Your task to perform on an android device: uninstall "Grab" Image 0: 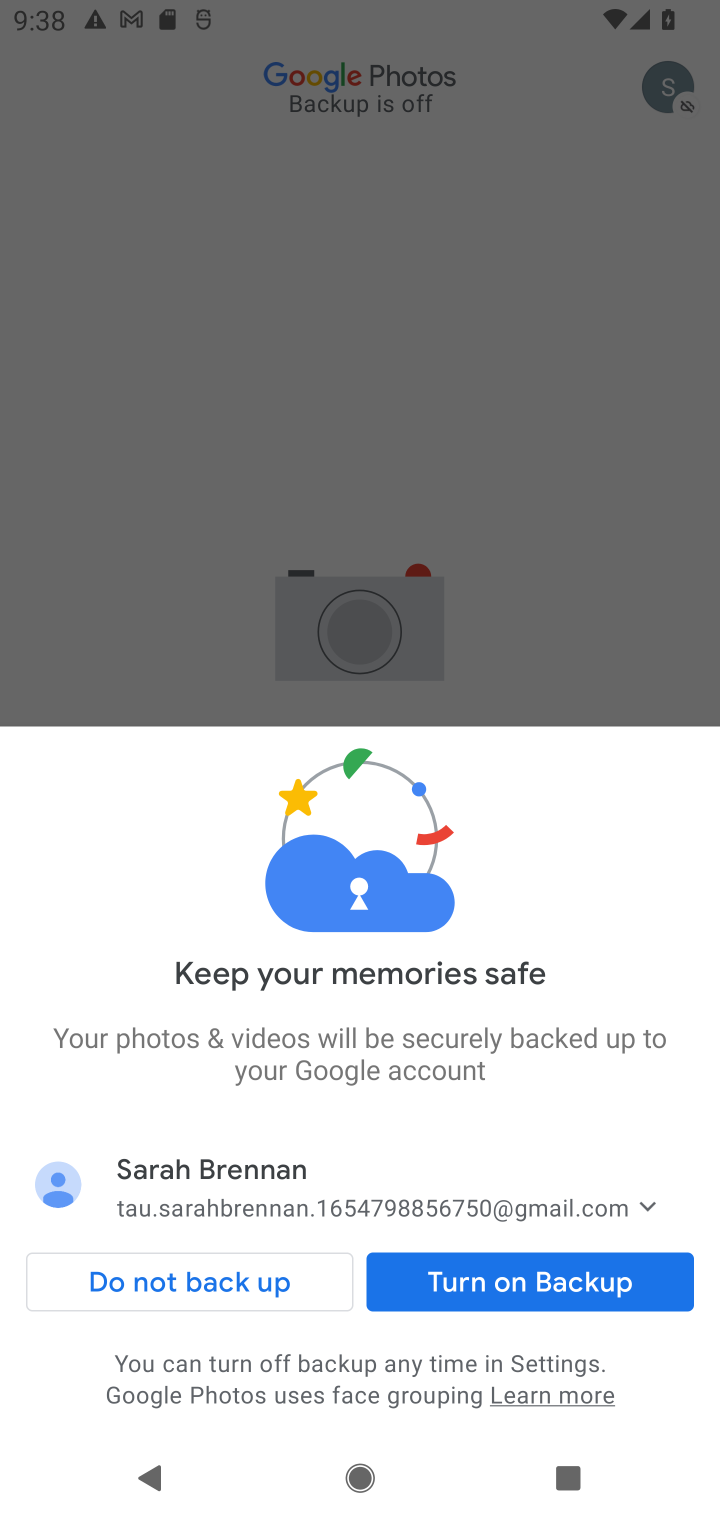
Step 0: press home button
Your task to perform on an android device: uninstall "Grab" Image 1: 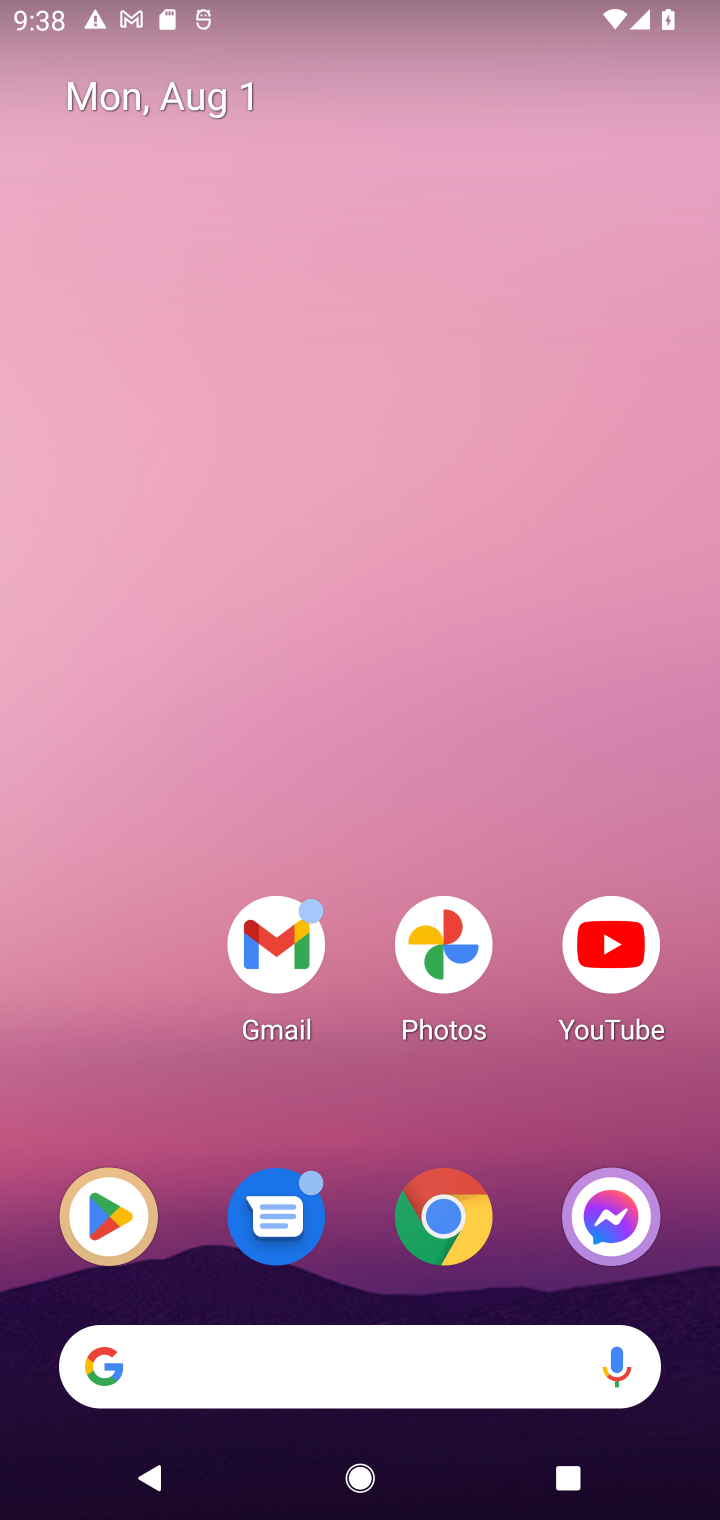
Step 1: click (129, 1225)
Your task to perform on an android device: uninstall "Grab" Image 2: 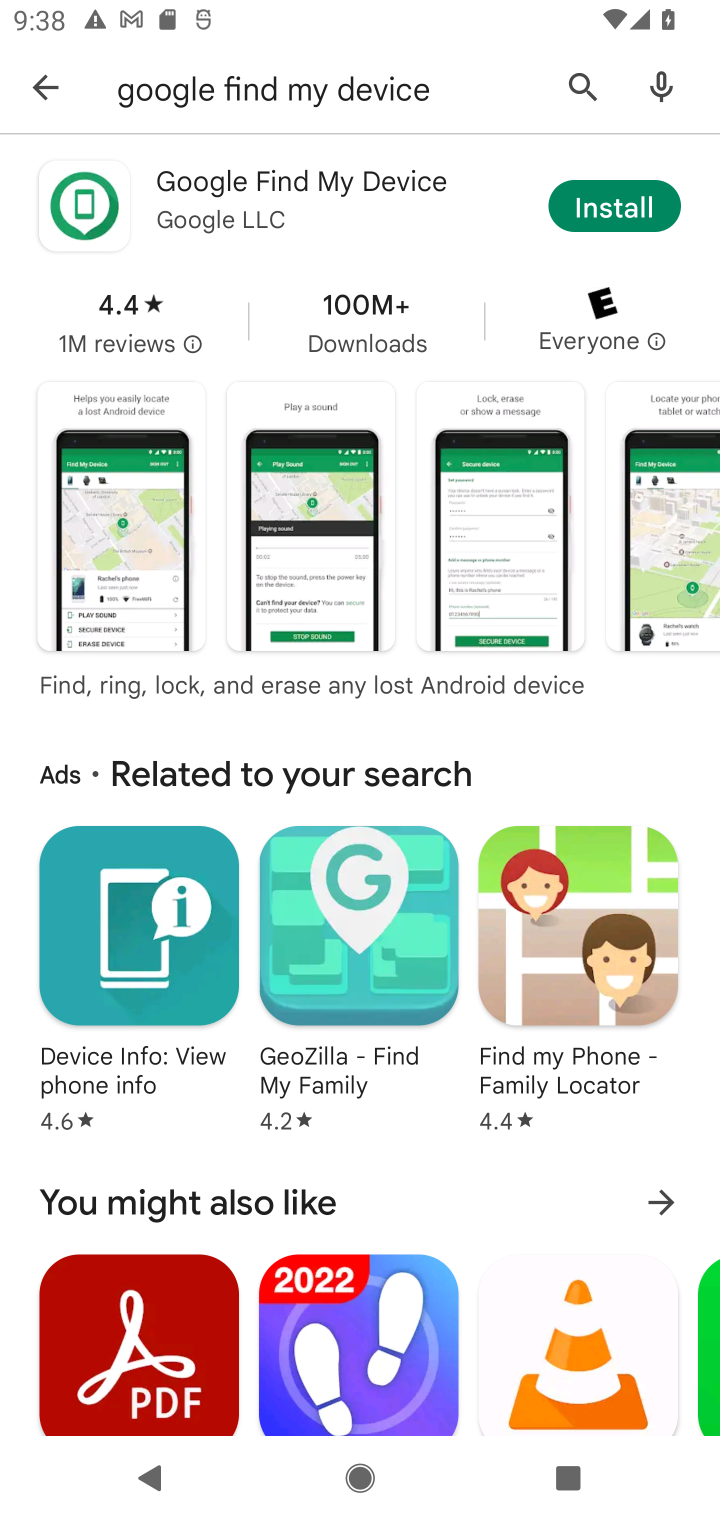
Step 2: click (593, 80)
Your task to perform on an android device: uninstall "Grab" Image 3: 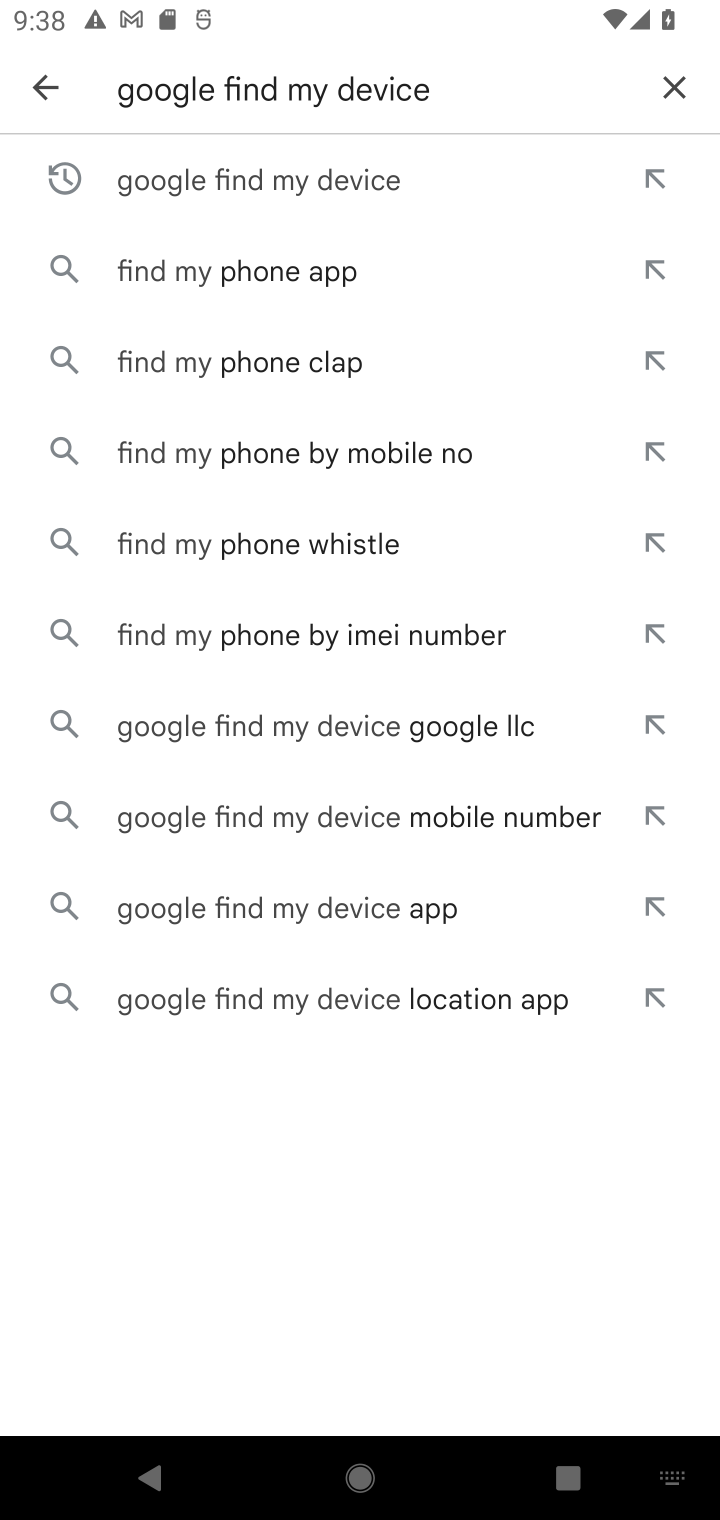
Step 3: click (669, 81)
Your task to perform on an android device: uninstall "Grab" Image 4: 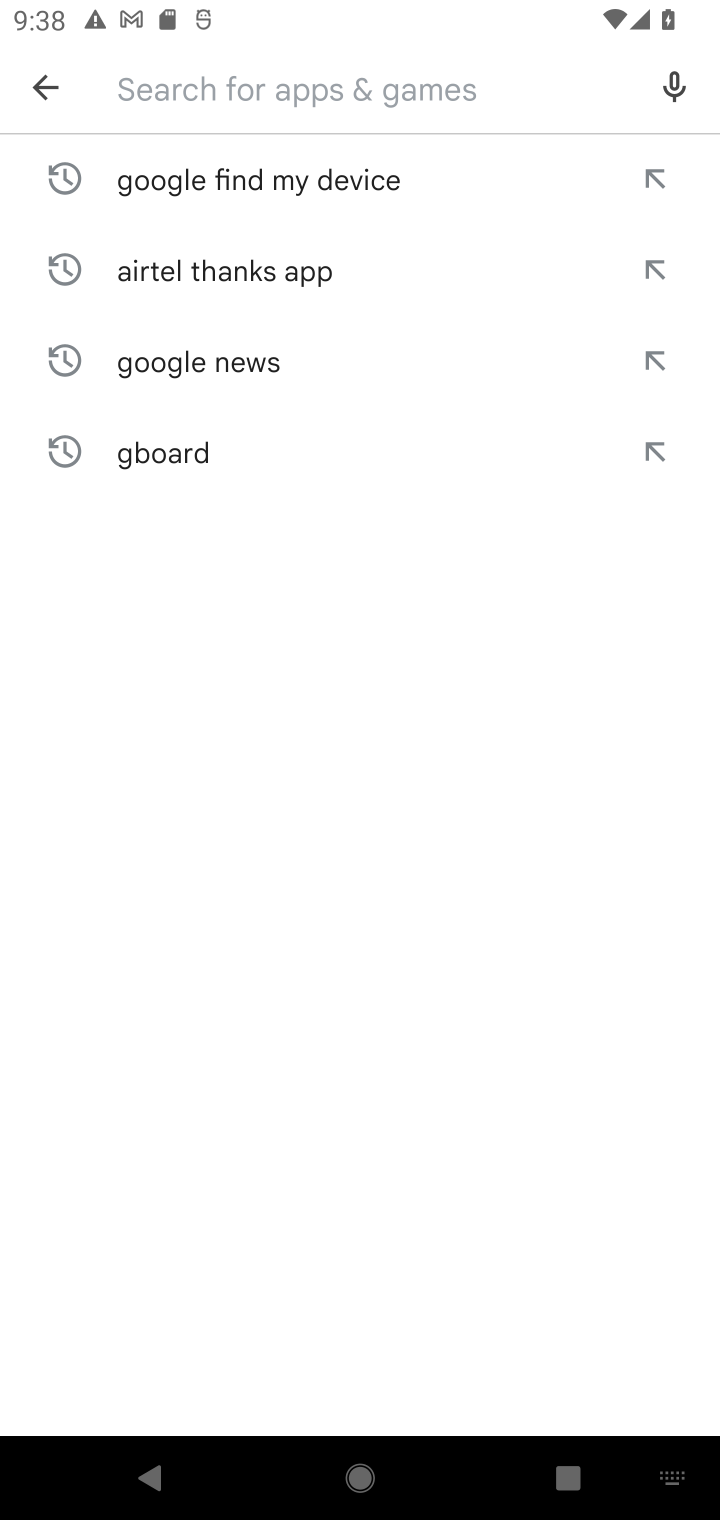
Step 4: type "Grab"
Your task to perform on an android device: uninstall "Grab" Image 5: 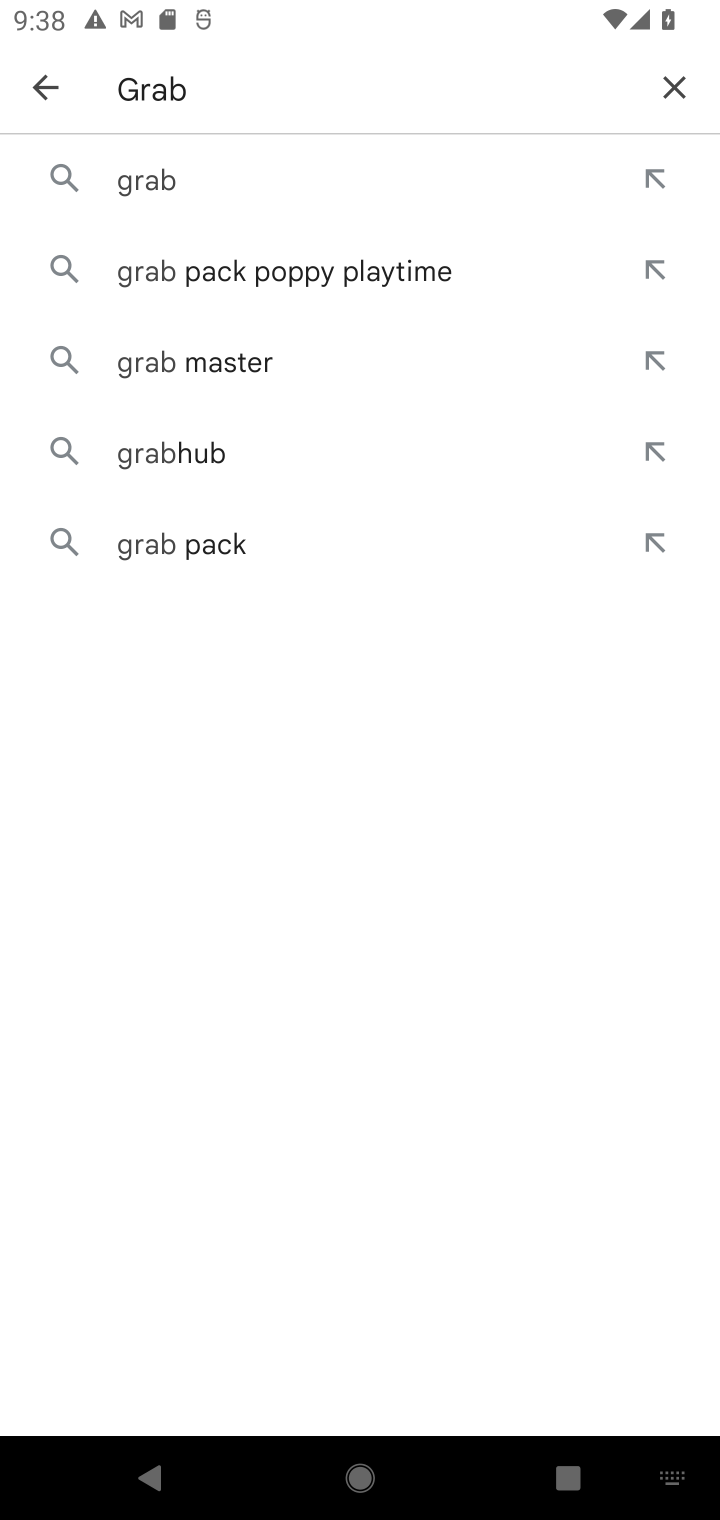
Step 5: click (120, 178)
Your task to perform on an android device: uninstall "Grab" Image 6: 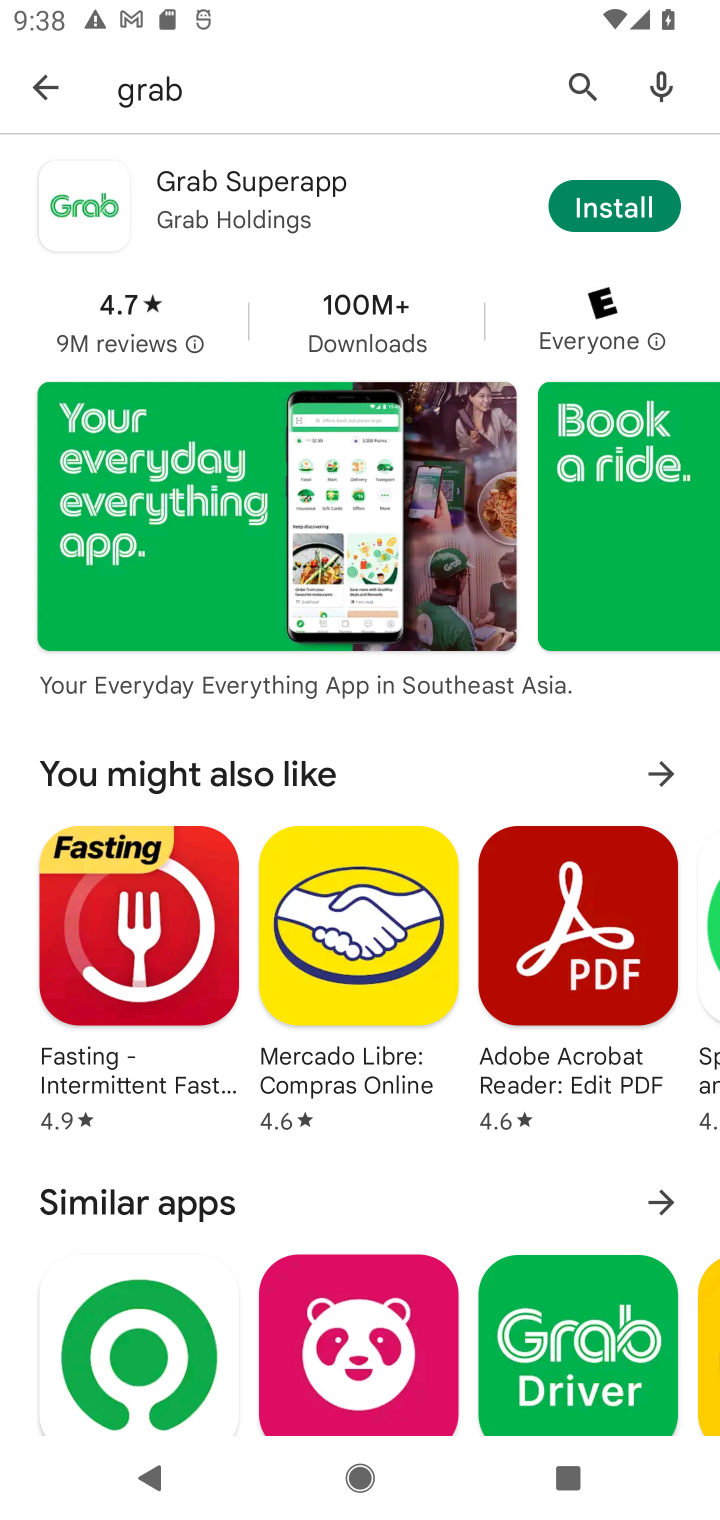
Step 6: task complete